Your task to perform on an android device: Go to battery settings Image 0: 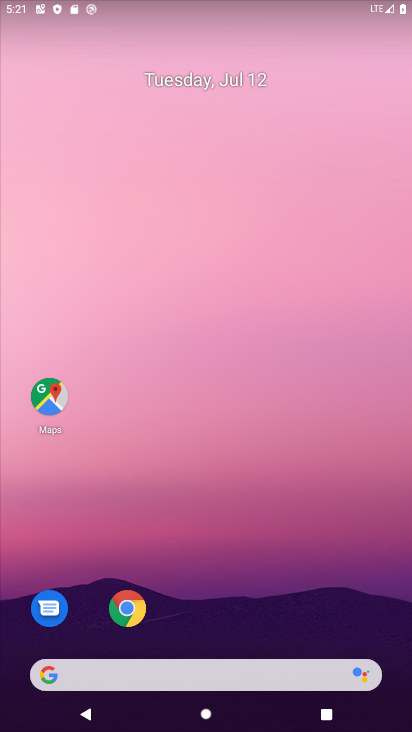
Step 0: drag from (165, 6) to (189, 613)
Your task to perform on an android device: Go to battery settings Image 1: 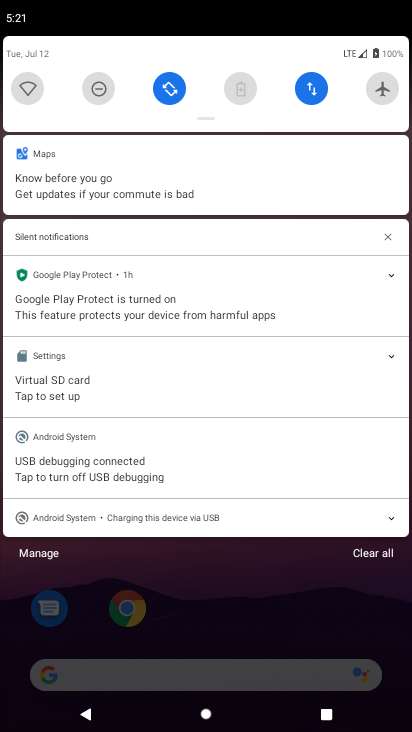
Step 1: click (249, 86)
Your task to perform on an android device: Go to battery settings Image 2: 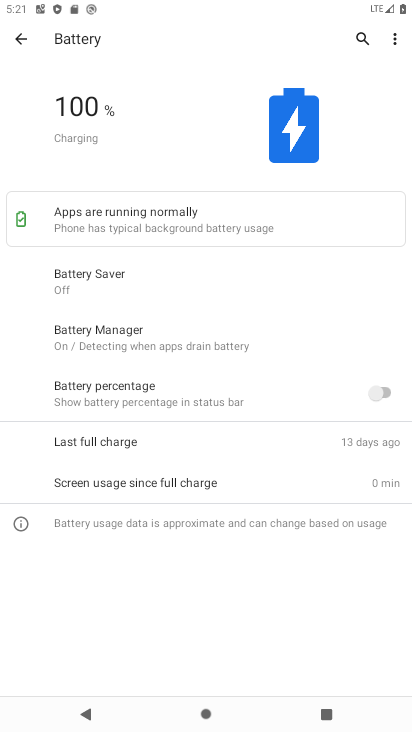
Step 2: task complete